Your task to perform on an android device: find snoozed emails in the gmail app Image 0: 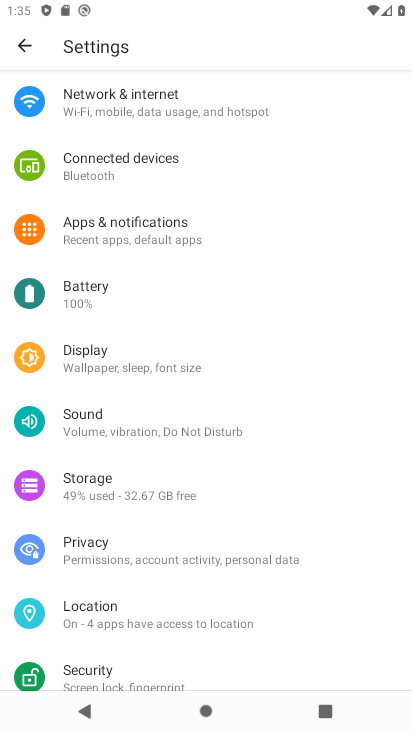
Step 0: press home button
Your task to perform on an android device: find snoozed emails in the gmail app Image 1: 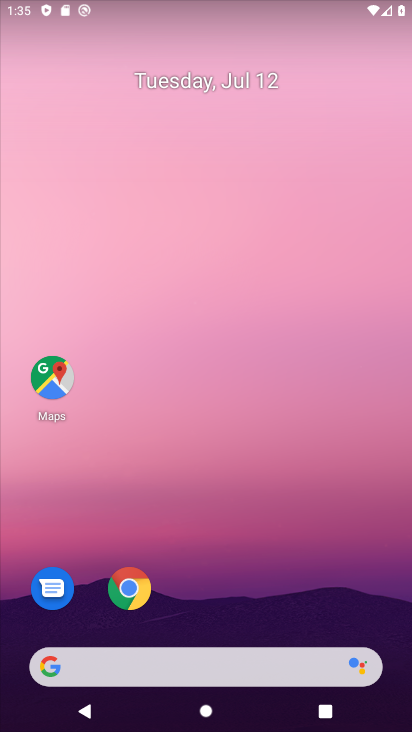
Step 1: drag from (177, 626) to (168, 38)
Your task to perform on an android device: find snoozed emails in the gmail app Image 2: 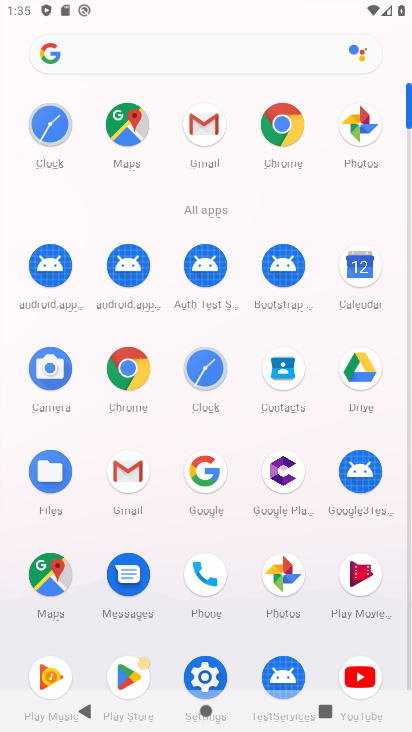
Step 2: click (201, 146)
Your task to perform on an android device: find snoozed emails in the gmail app Image 3: 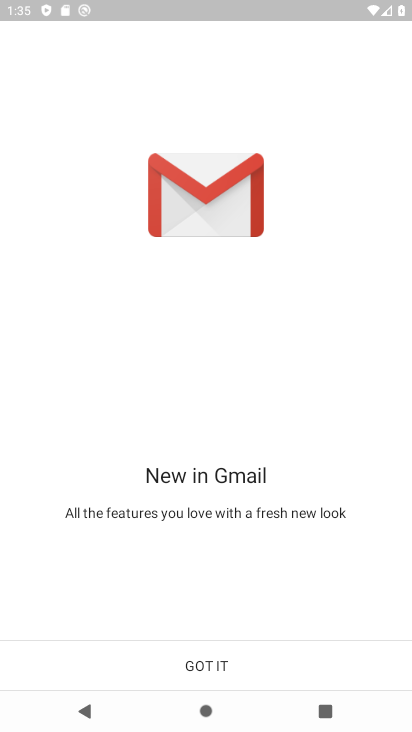
Step 3: click (280, 679)
Your task to perform on an android device: find snoozed emails in the gmail app Image 4: 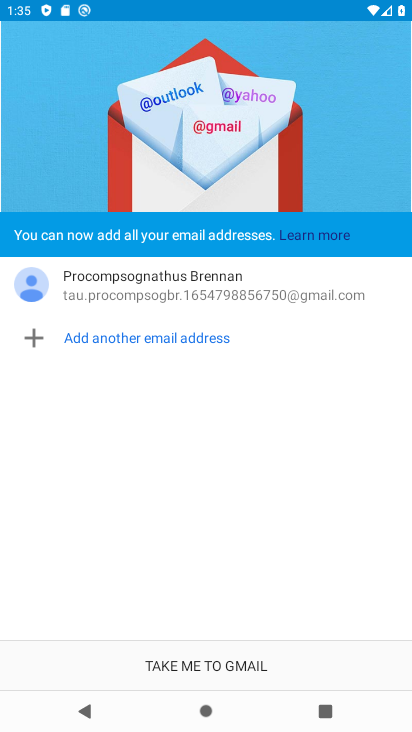
Step 4: click (280, 679)
Your task to perform on an android device: find snoozed emails in the gmail app Image 5: 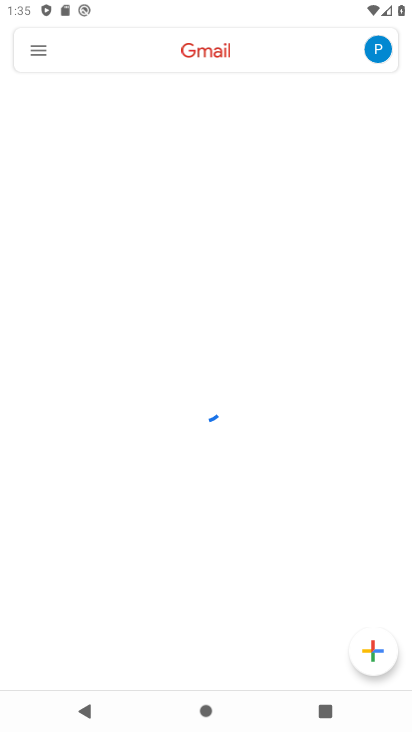
Step 5: click (47, 46)
Your task to perform on an android device: find snoozed emails in the gmail app Image 6: 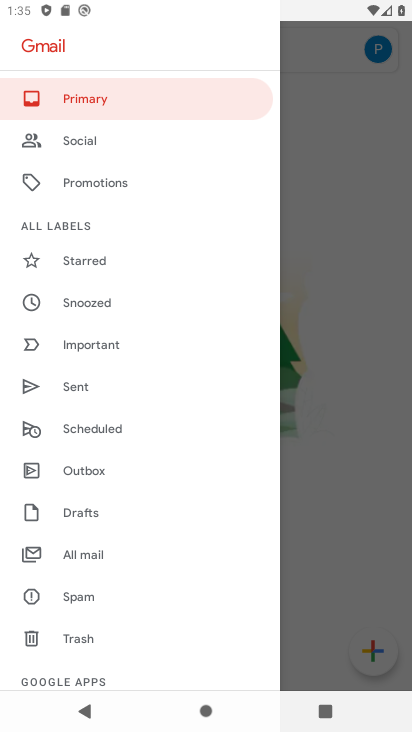
Step 6: click (124, 304)
Your task to perform on an android device: find snoozed emails in the gmail app Image 7: 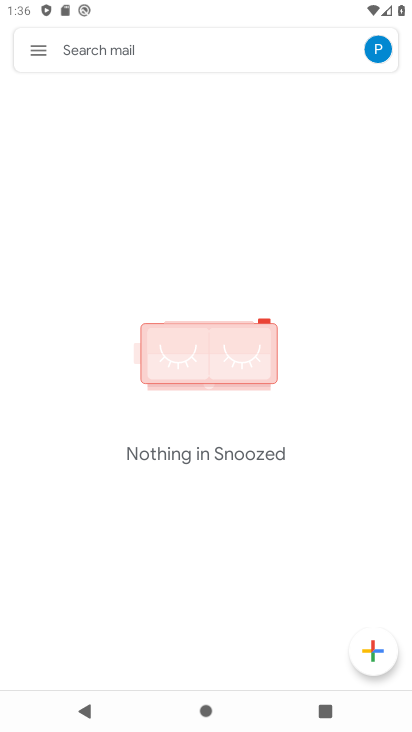
Step 7: task complete